Your task to perform on an android device: read, delete, or share a saved page in the chrome app Image 0: 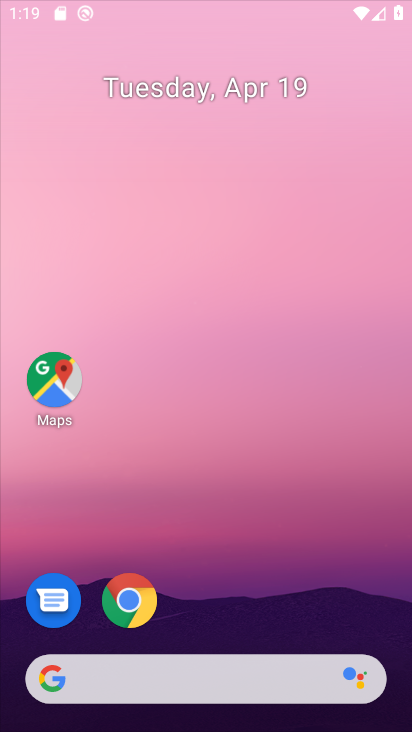
Step 0: click (254, 57)
Your task to perform on an android device: read, delete, or share a saved page in the chrome app Image 1: 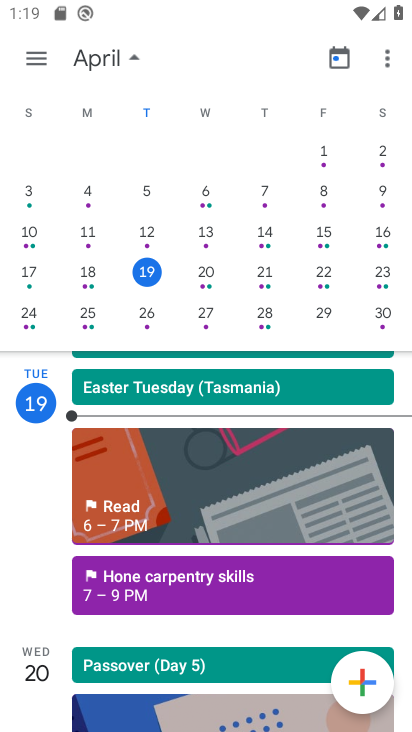
Step 1: press back button
Your task to perform on an android device: read, delete, or share a saved page in the chrome app Image 2: 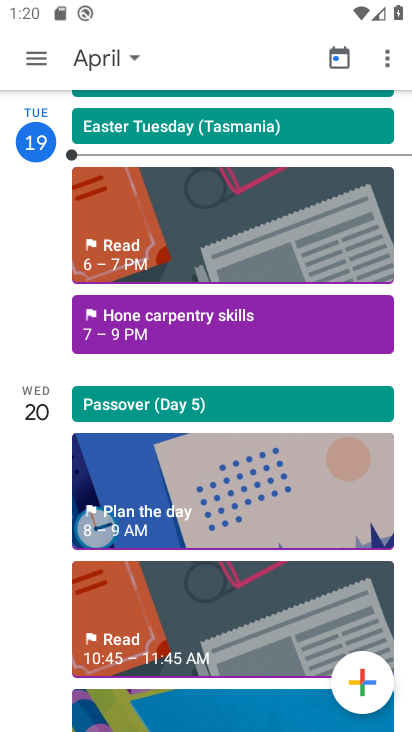
Step 2: press back button
Your task to perform on an android device: read, delete, or share a saved page in the chrome app Image 3: 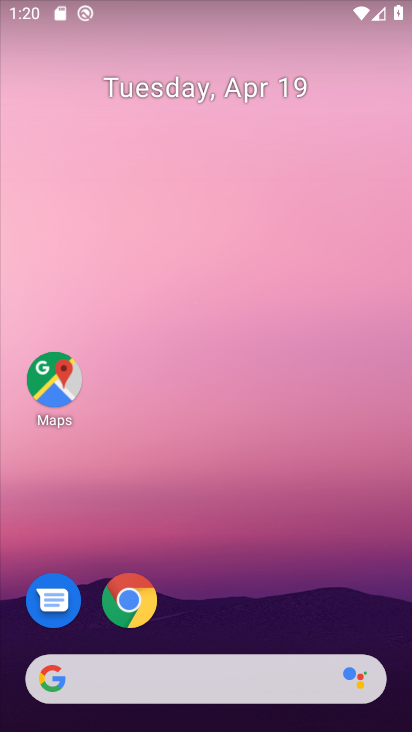
Step 3: drag from (252, 539) to (235, 5)
Your task to perform on an android device: read, delete, or share a saved page in the chrome app Image 4: 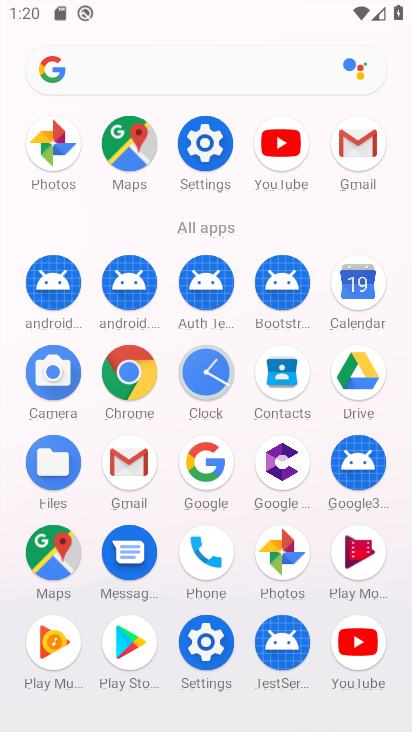
Step 4: click (127, 370)
Your task to perform on an android device: read, delete, or share a saved page in the chrome app Image 5: 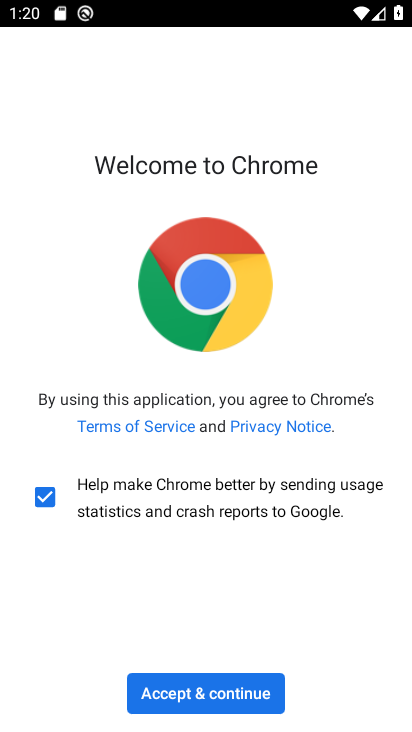
Step 5: click (207, 704)
Your task to perform on an android device: read, delete, or share a saved page in the chrome app Image 6: 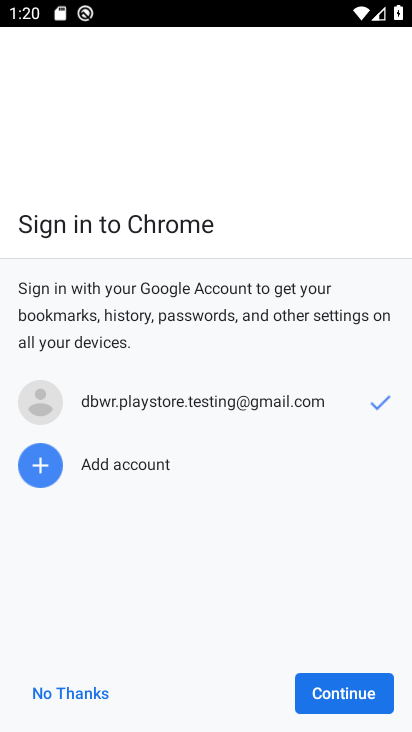
Step 6: click (323, 692)
Your task to perform on an android device: read, delete, or share a saved page in the chrome app Image 7: 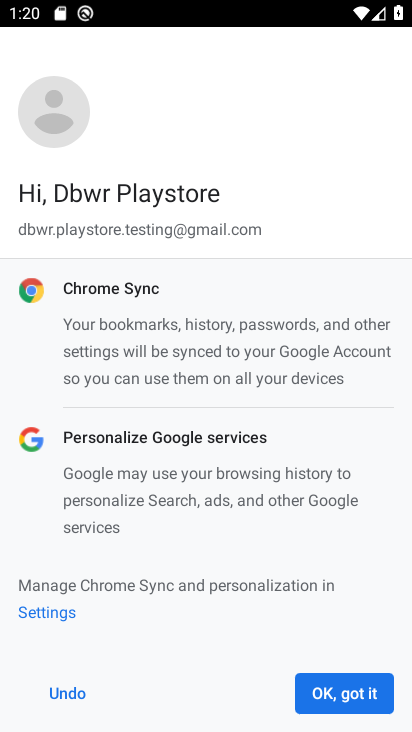
Step 7: click (323, 692)
Your task to perform on an android device: read, delete, or share a saved page in the chrome app Image 8: 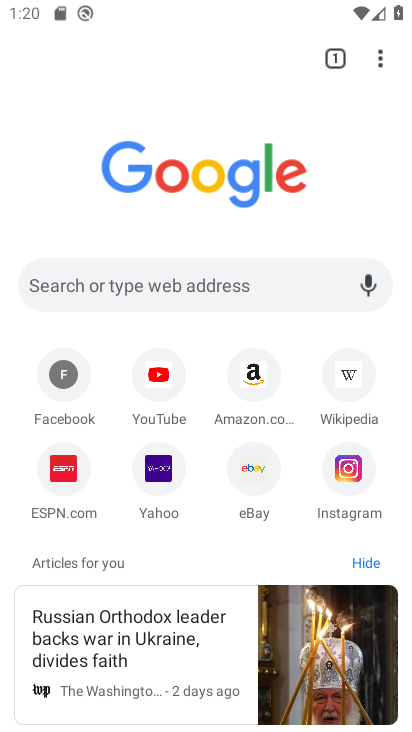
Step 8: task complete